Your task to perform on an android device: Go to wifi settings Image 0: 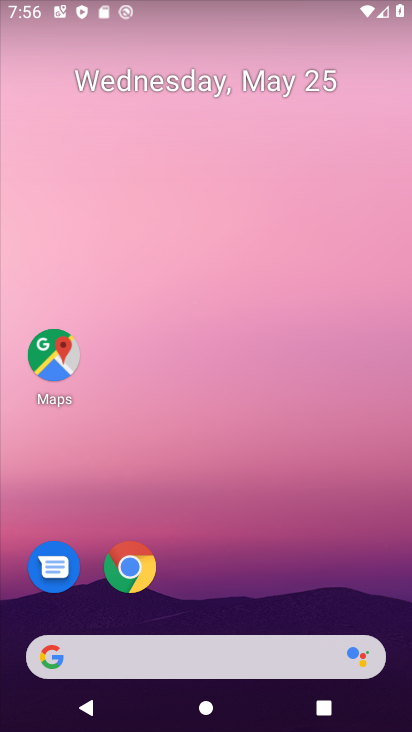
Step 0: drag from (277, 576) to (243, 15)
Your task to perform on an android device: Go to wifi settings Image 1: 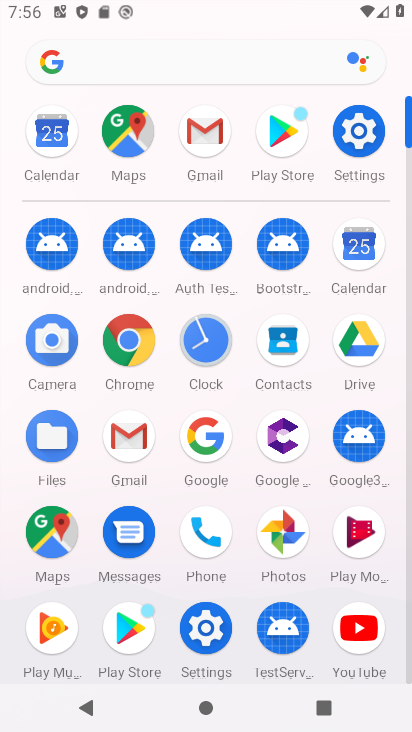
Step 1: click (346, 133)
Your task to perform on an android device: Go to wifi settings Image 2: 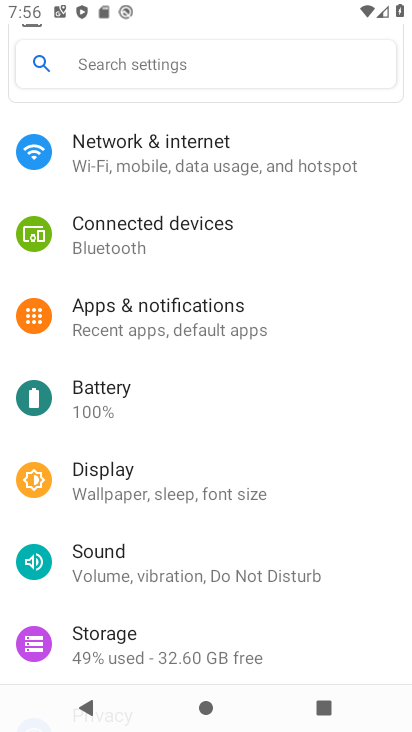
Step 2: click (332, 159)
Your task to perform on an android device: Go to wifi settings Image 3: 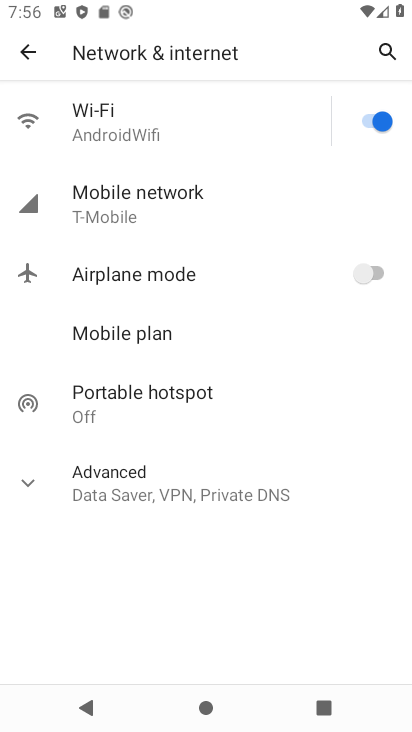
Step 3: click (209, 139)
Your task to perform on an android device: Go to wifi settings Image 4: 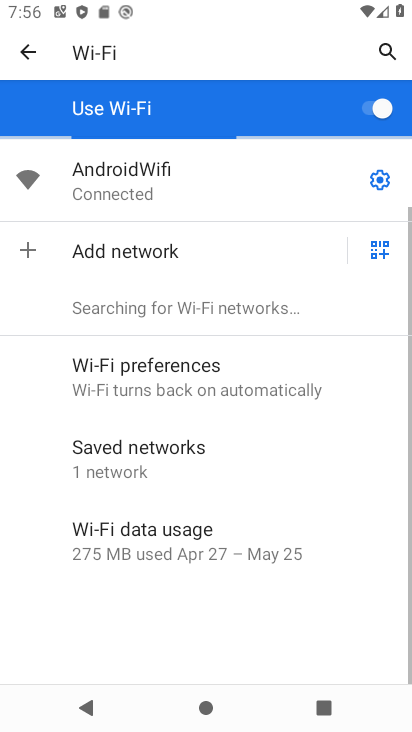
Step 4: task complete